Your task to perform on an android device: Open privacy settings Image 0: 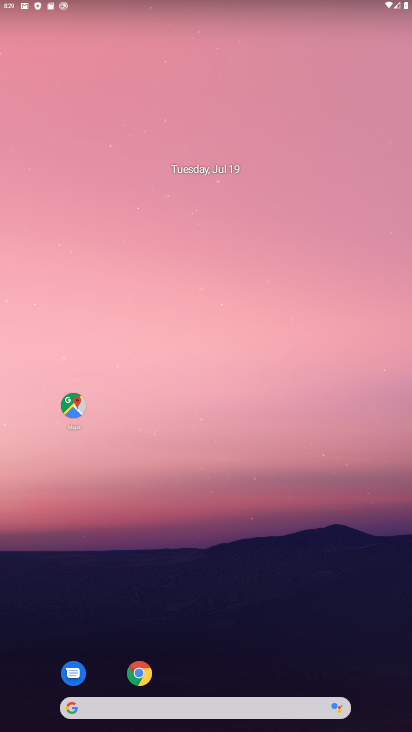
Step 0: drag from (205, 583) to (241, 113)
Your task to perform on an android device: Open privacy settings Image 1: 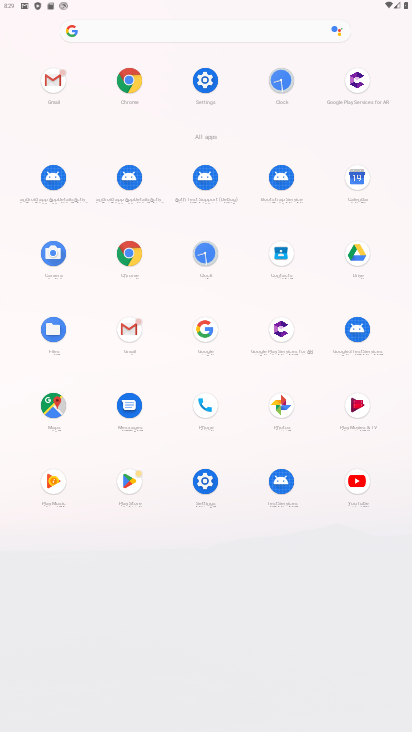
Step 1: click (212, 491)
Your task to perform on an android device: Open privacy settings Image 2: 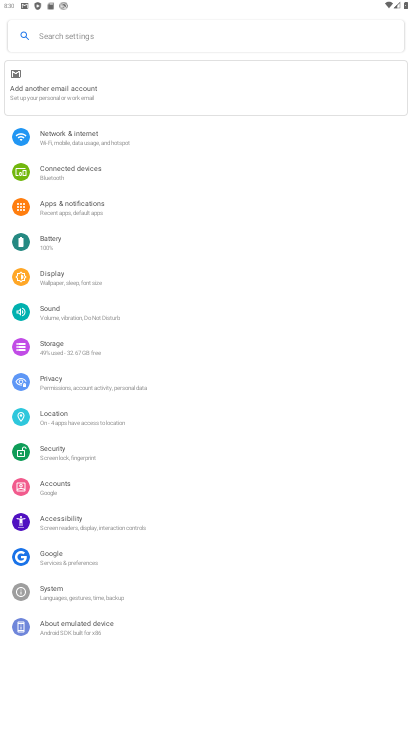
Step 2: click (72, 384)
Your task to perform on an android device: Open privacy settings Image 3: 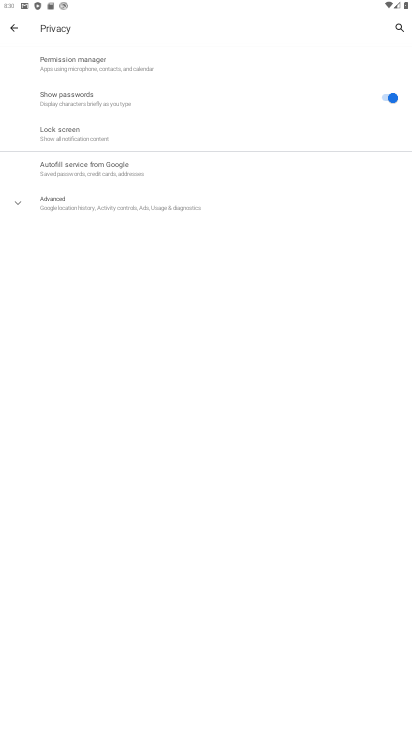
Step 3: task complete